Your task to perform on an android device: turn smart compose on in the gmail app Image 0: 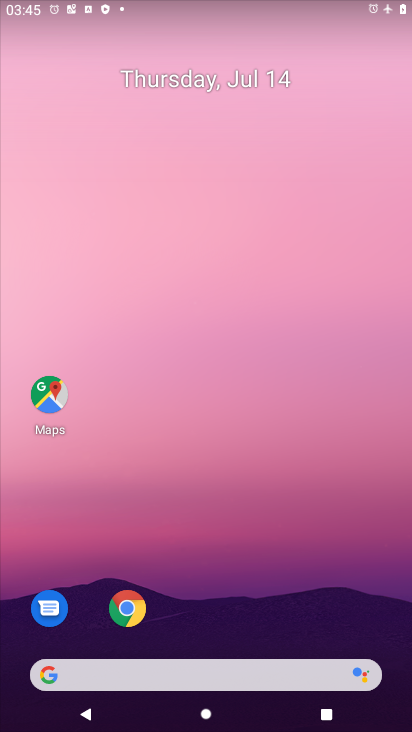
Step 0: drag from (391, 672) to (305, 143)
Your task to perform on an android device: turn smart compose on in the gmail app Image 1: 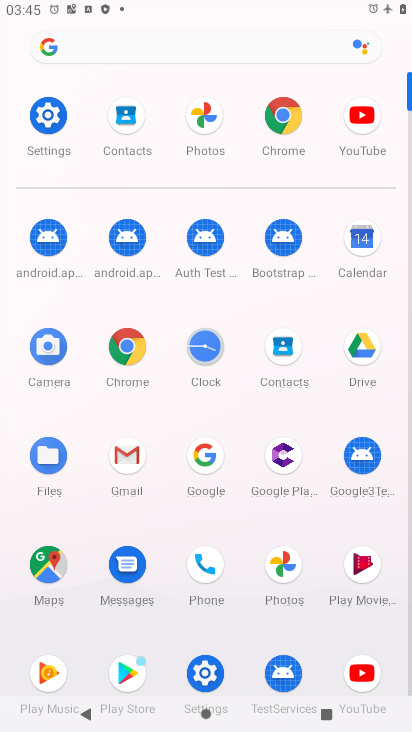
Step 1: click (128, 456)
Your task to perform on an android device: turn smart compose on in the gmail app Image 2: 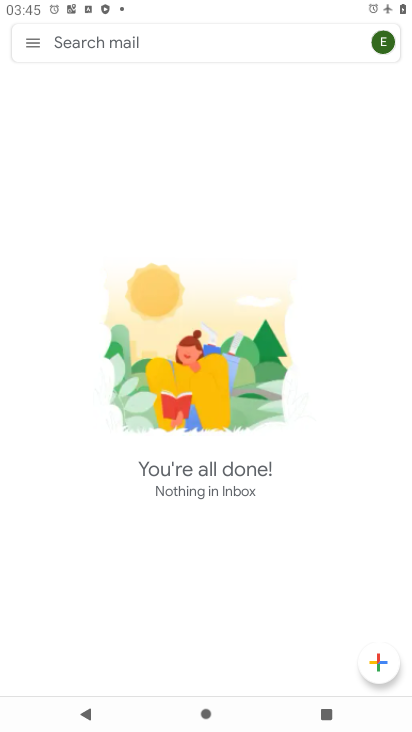
Step 2: click (29, 40)
Your task to perform on an android device: turn smart compose on in the gmail app Image 3: 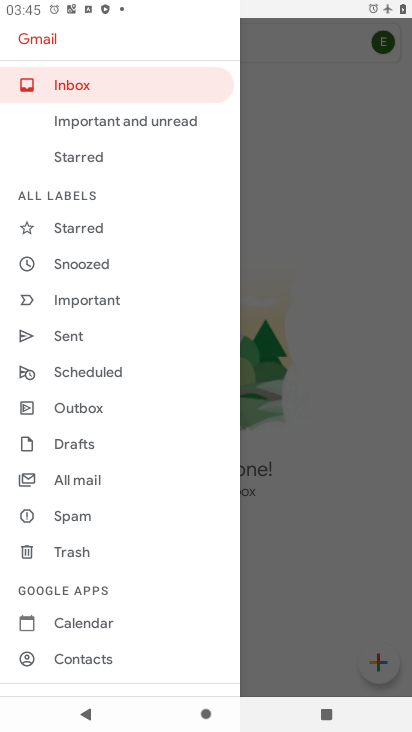
Step 3: drag from (151, 614) to (153, 354)
Your task to perform on an android device: turn smart compose on in the gmail app Image 4: 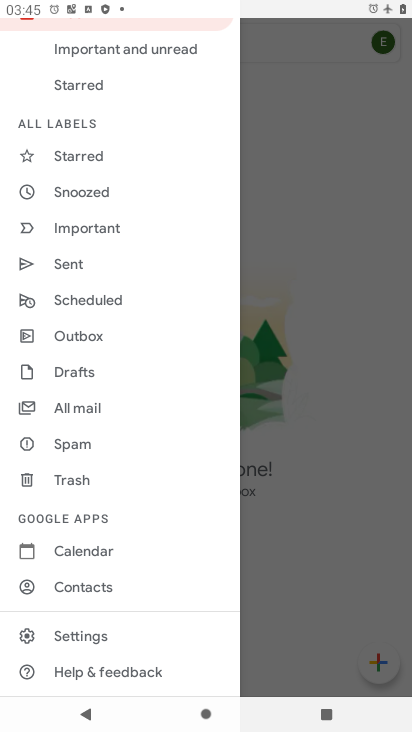
Step 4: click (84, 635)
Your task to perform on an android device: turn smart compose on in the gmail app Image 5: 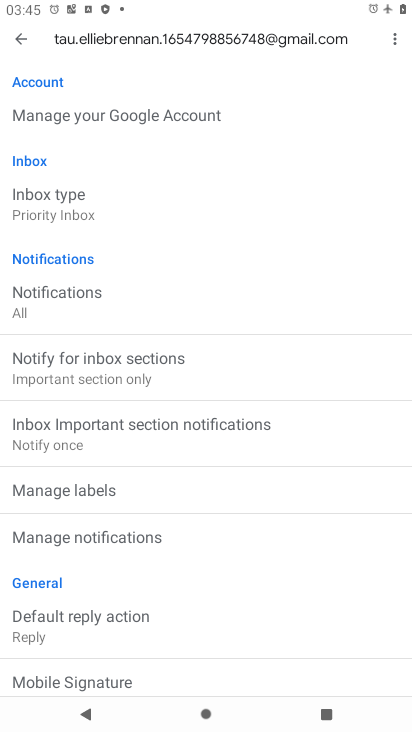
Step 5: task complete